Your task to perform on an android device: Do I have any events tomorrow? Image 0: 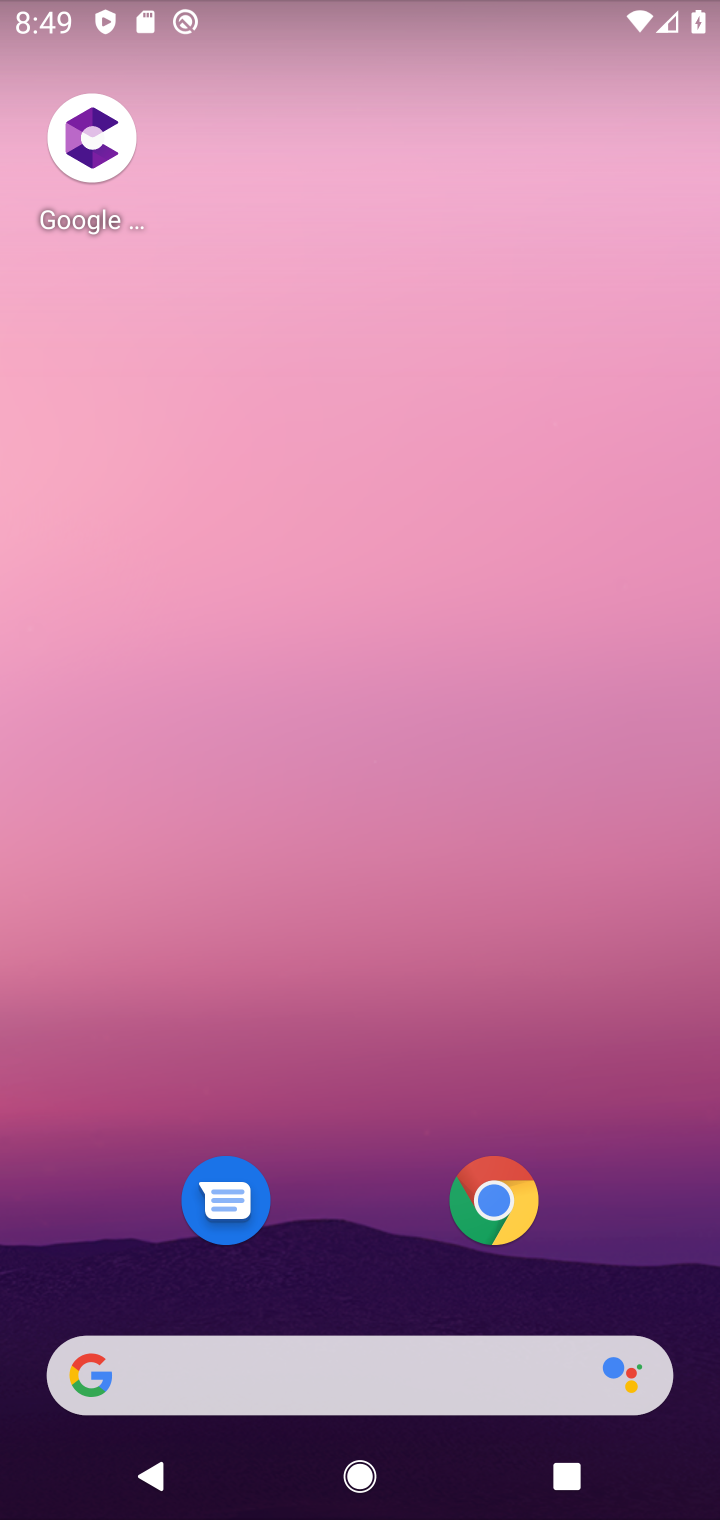
Step 0: drag from (422, 729) to (616, 21)
Your task to perform on an android device: Do I have any events tomorrow? Image 1: 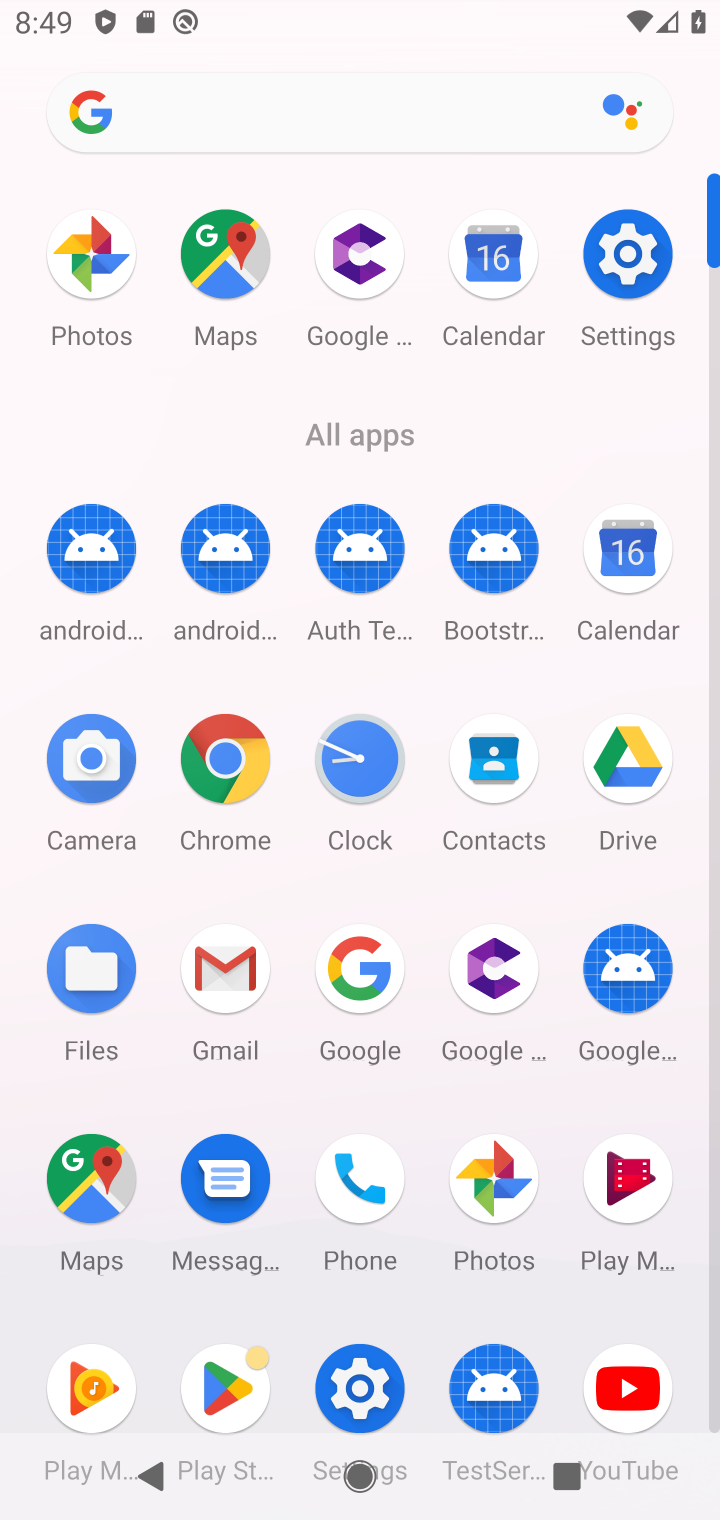
Step 1: click (603, 632)
Your task to perform on an android device: Do I have any events tomorrow? Image 2: 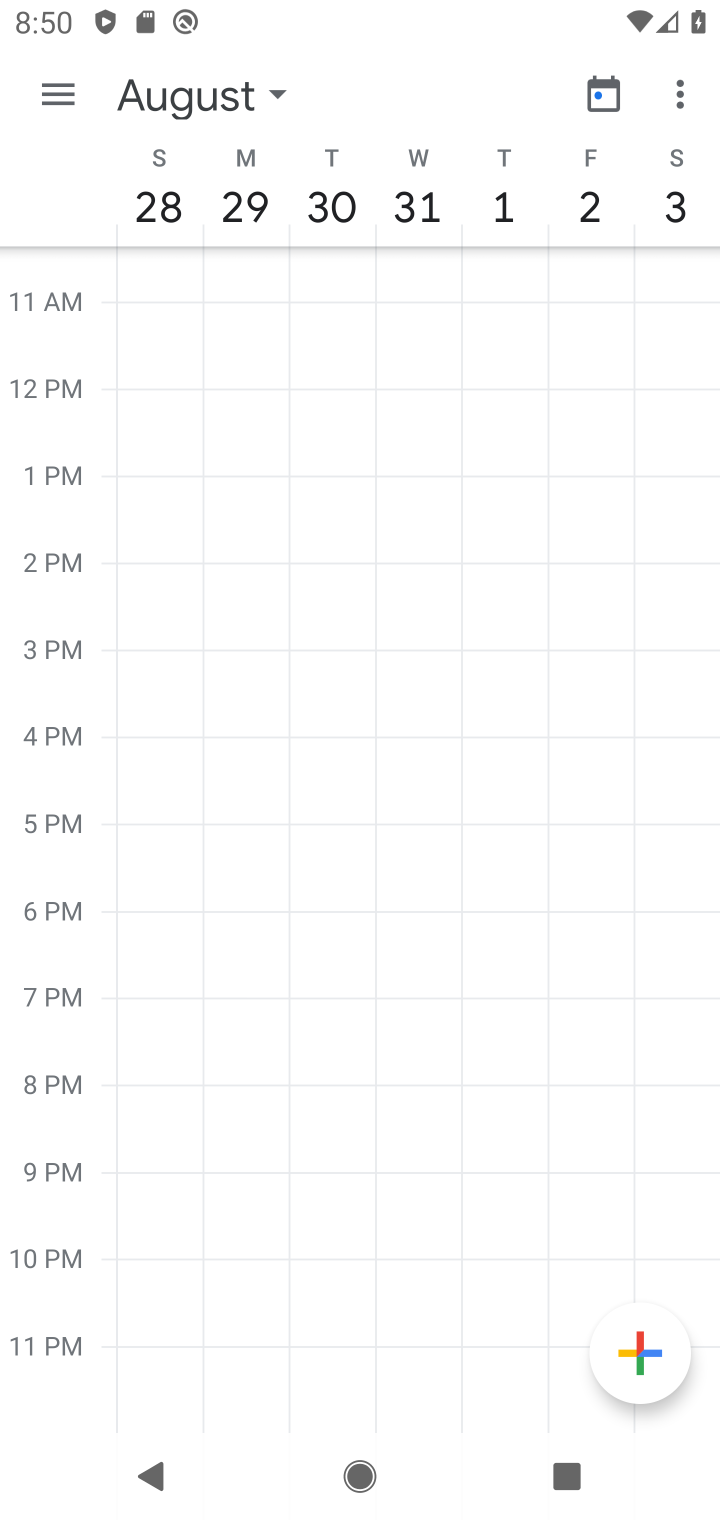
Step 2: click (269, 91)
Your task to perform on an android device: Do I have any events tomorrow? Image 3: 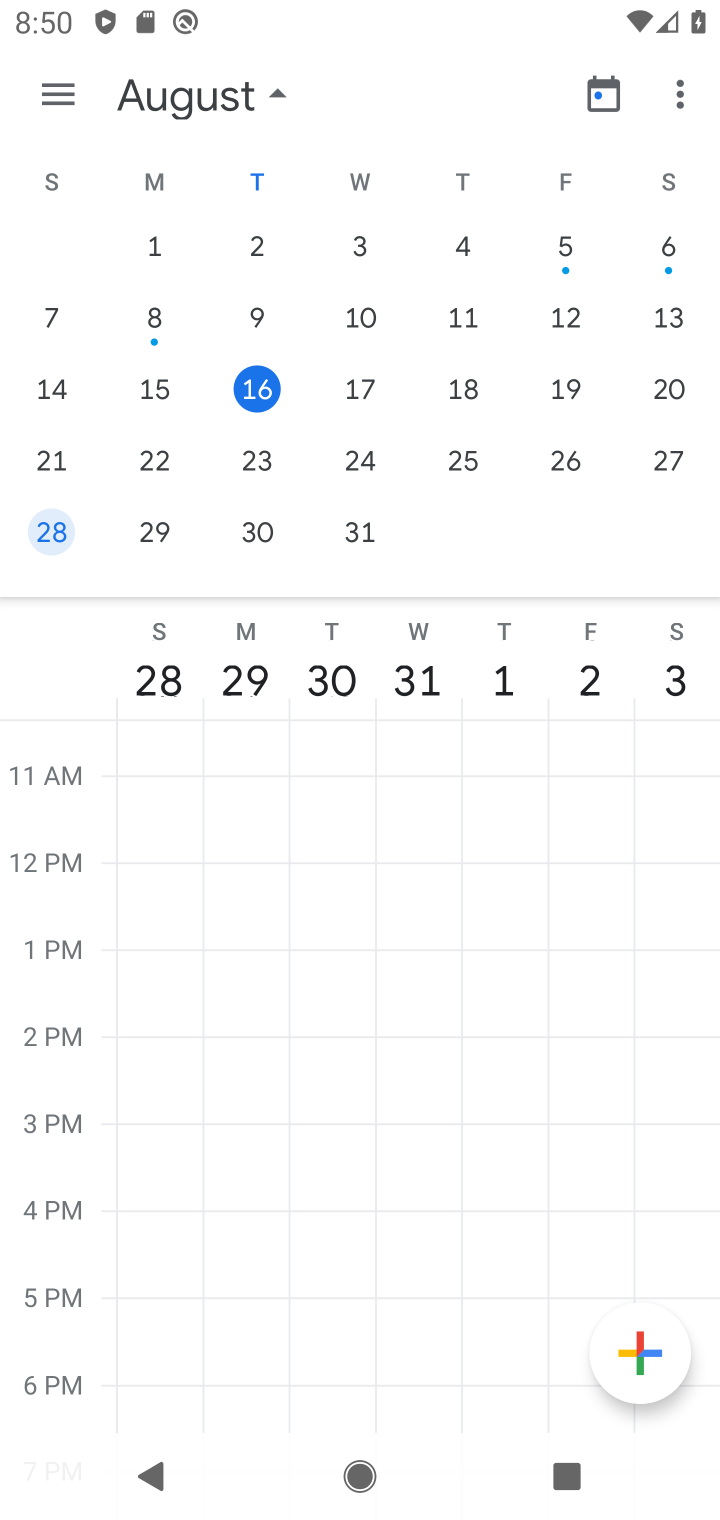
Step 3: click (358, 395)
Your task to perform on an android device: Do I have any events tomorrow? Image 4: 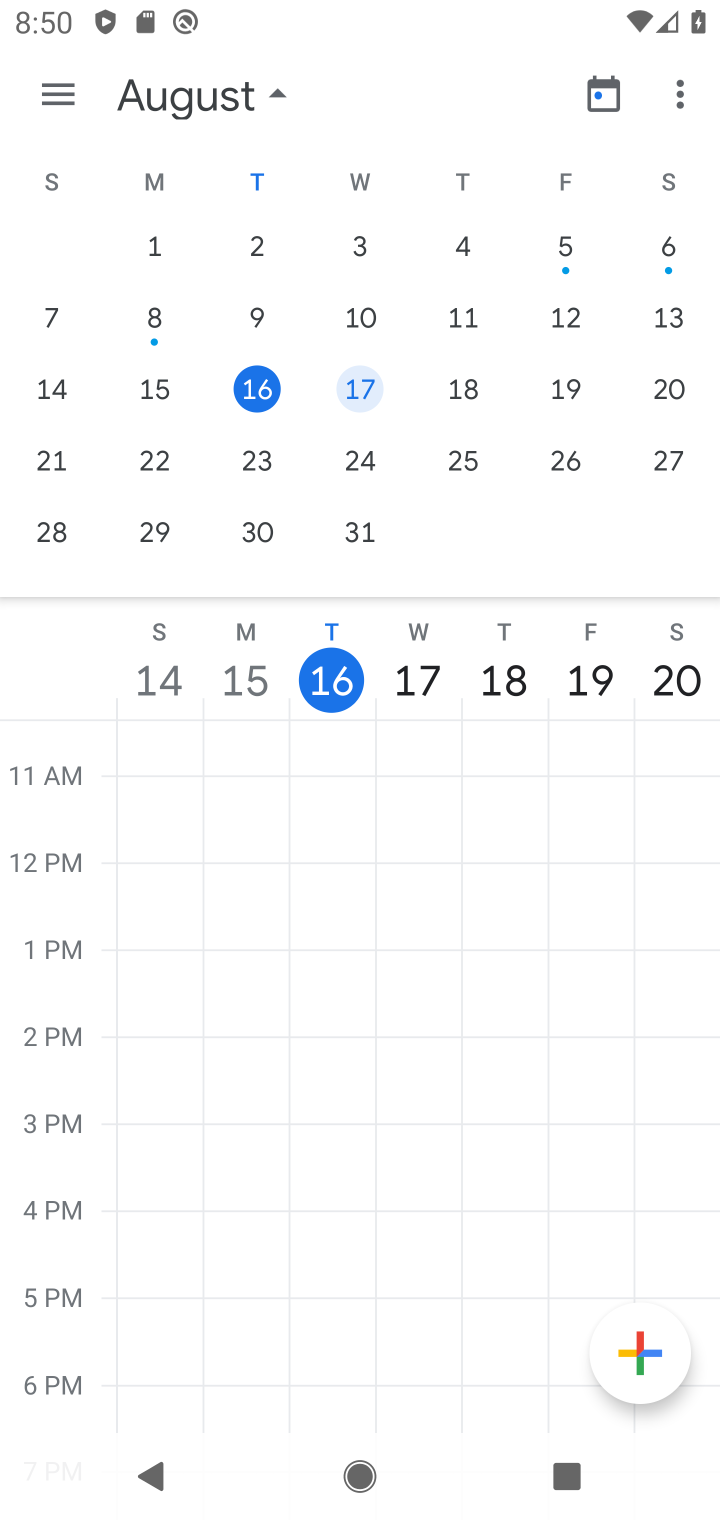
Step 4: click (384, 382)
Your task to perform on an android device: Do I have any events tomorrow? Image 5: 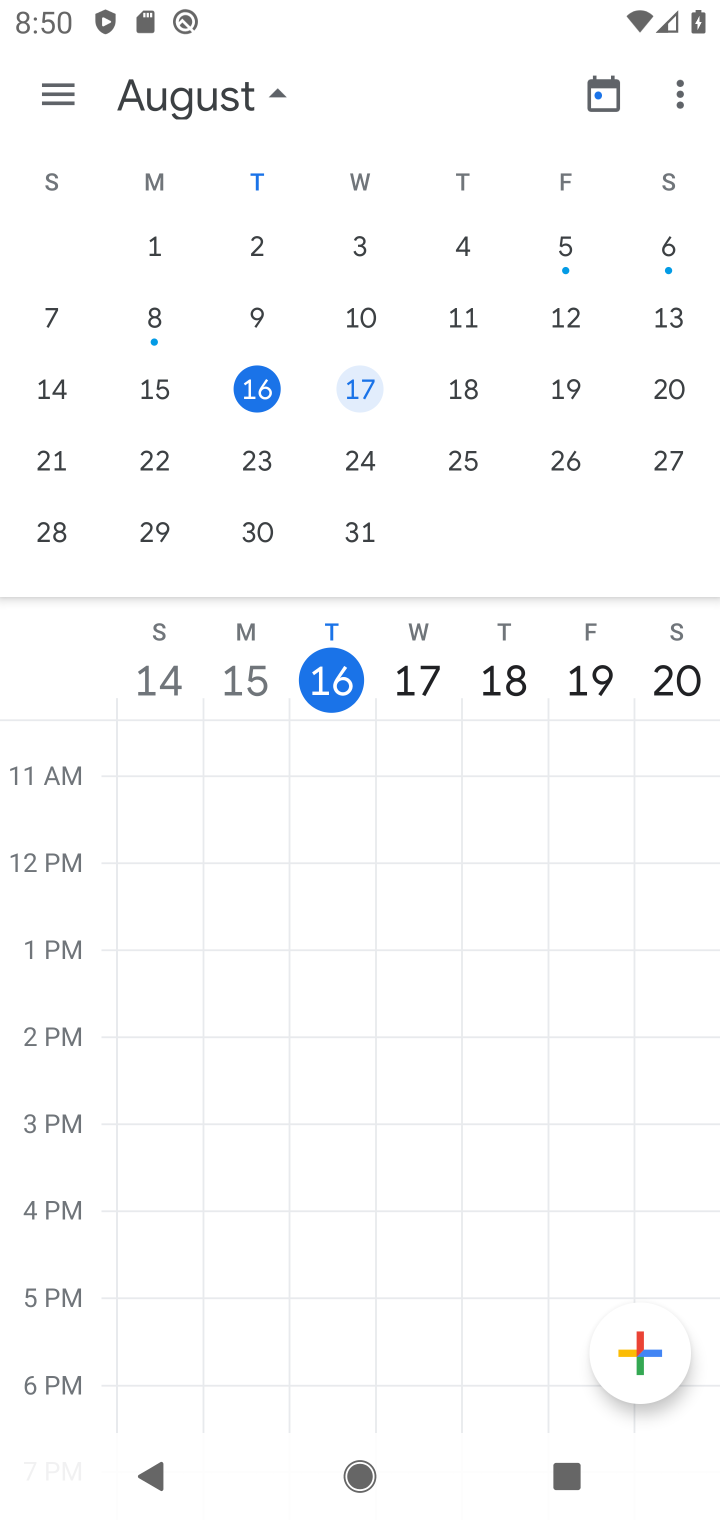
Step 5: click (361, 372)
Your task to perform on an android device: Do I have any events tomorrow? Image 6: 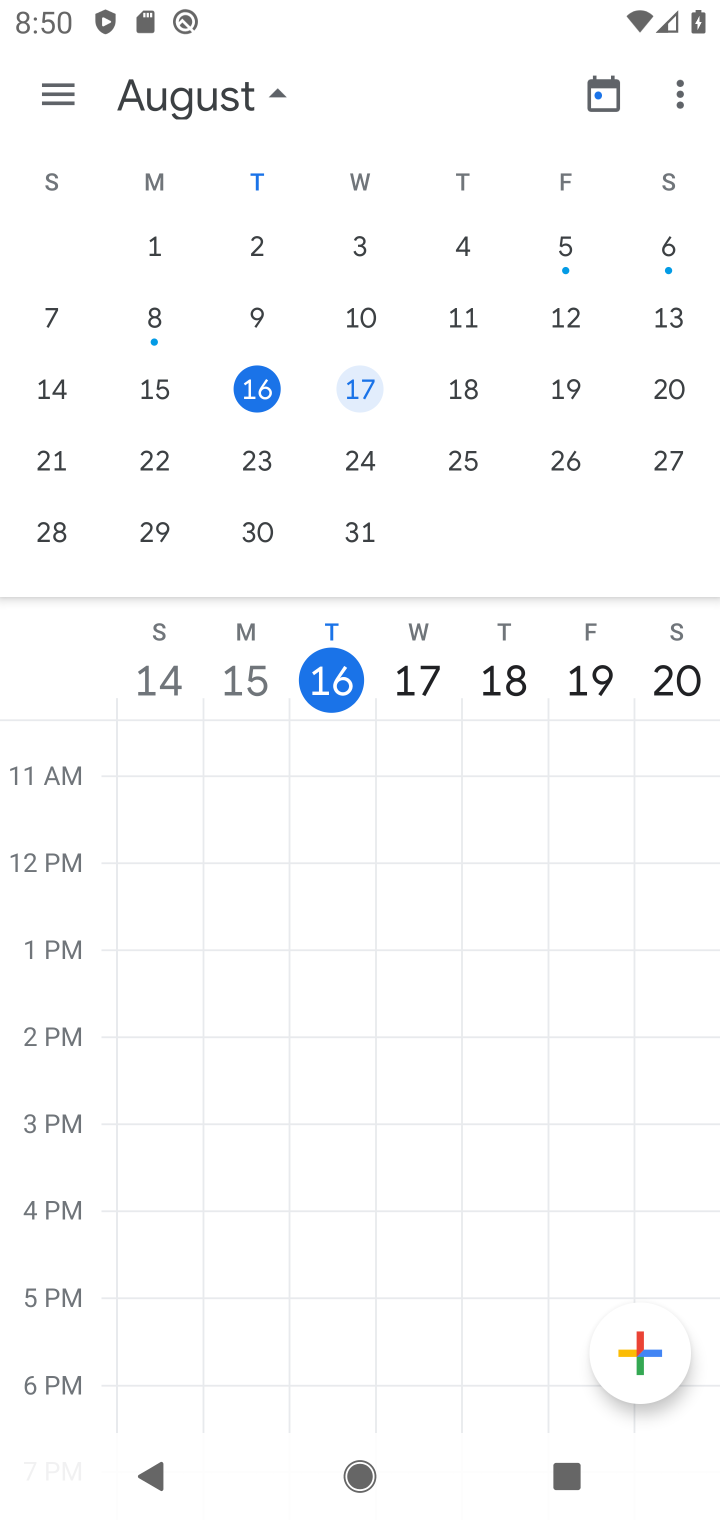
Step 6: task complete